Your task to perform on an android device: set an alarm Image 0: 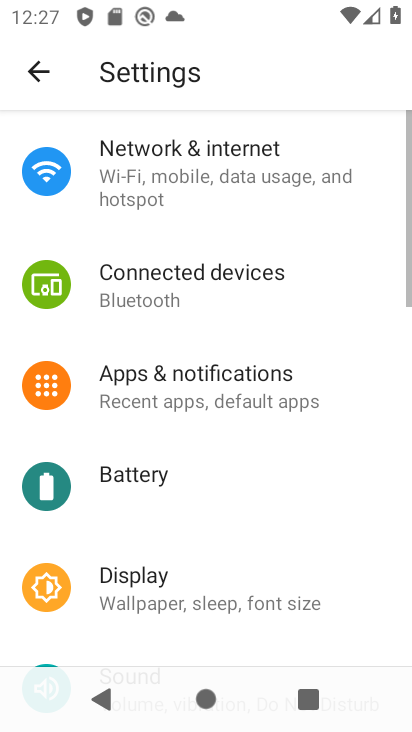
Step 0: click (205, 617)
Your task to perform on an android device: set an alarm Image 1: 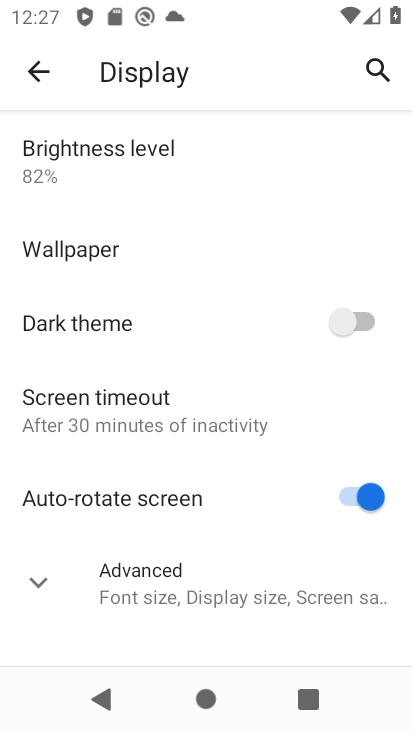
Step 1: press home button
Your task to perform on an android device: set an alarm Image 2: 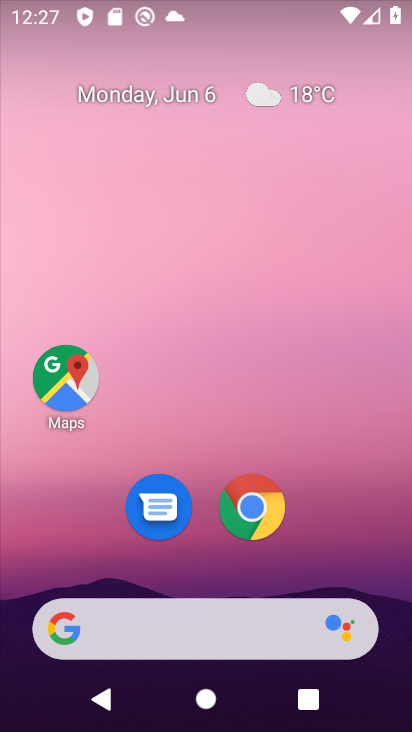
Step 2: drag from (191, 578) to (188, 249)
Your task to perform on an android device: set an alarm Image 3: 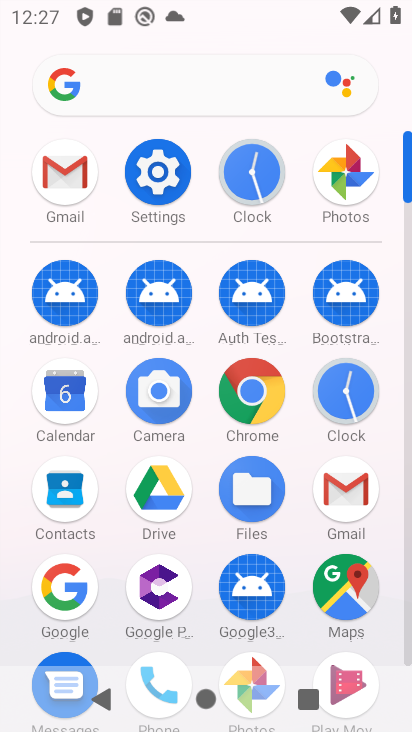
Step 3: click (351, 420)
Your task to perform on an android device: set an alarm Image 4: 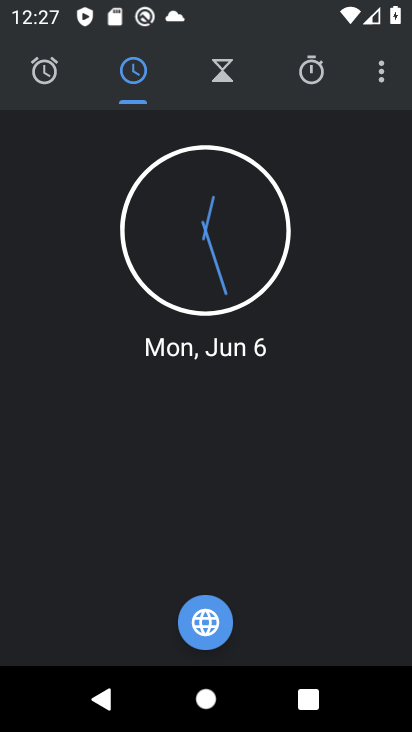
Step 4: click (53, 75)
Your task to perform on an android device: set an alarm Image 5: 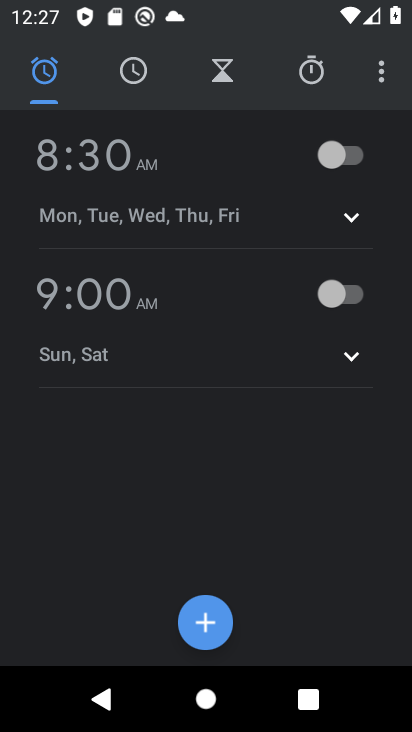
Step 5: click (348, 149)
Your task to perform on an android device: set an alarm Image 6: 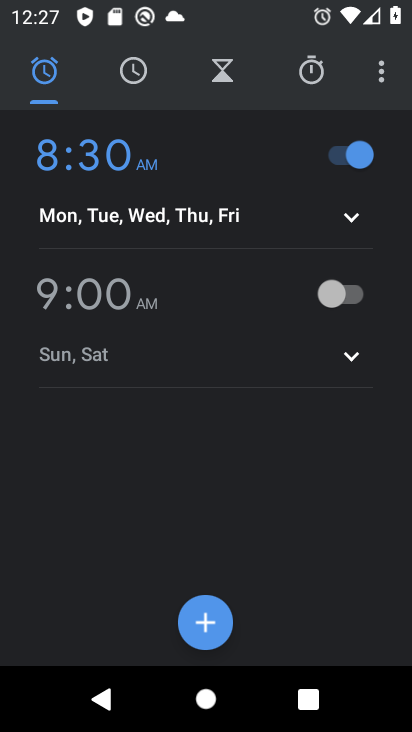
Step 6: task complete